Your task to perform on an android device: turn notification dots on Image 0: 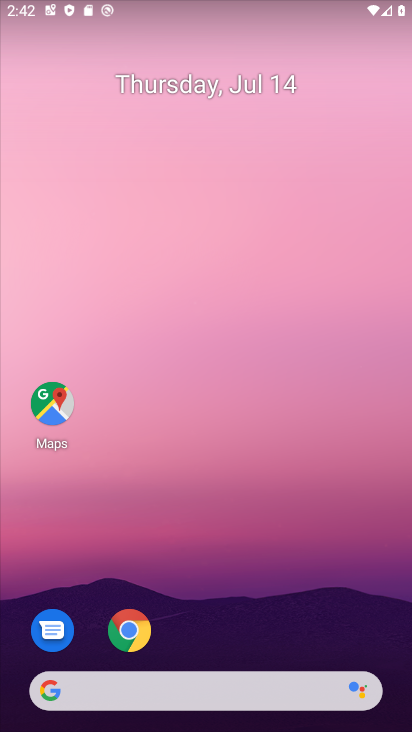
Step 0: drag from (218, 655) to (215, 80)
Your task to perform on an android device: turn notification dots on Image 1: 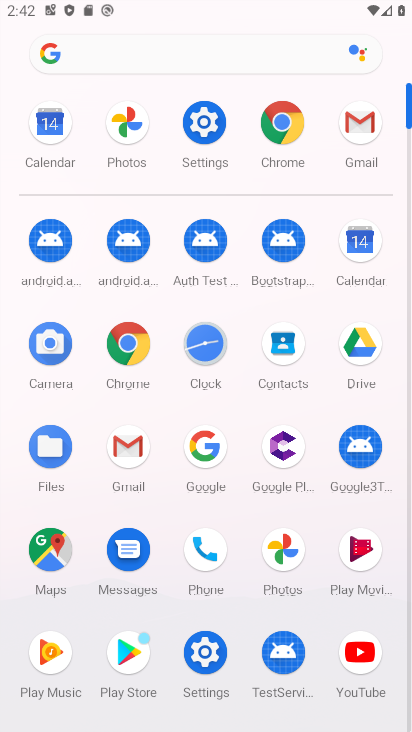
Step 1: click (205, 117)
Your task to perform on an android device: turn notification dots on Image 2: 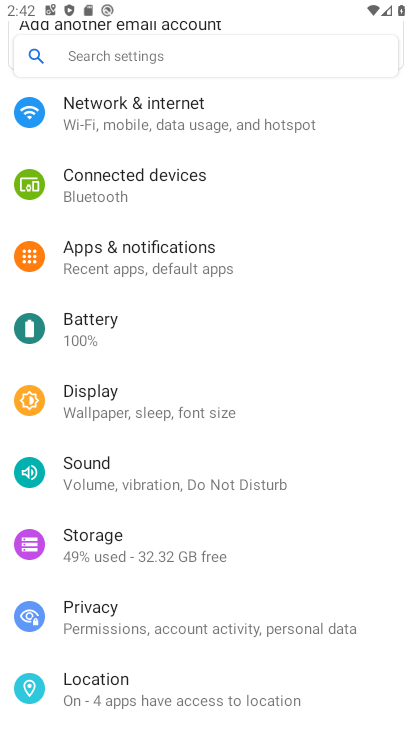
Step 2: click (202, 256)
Your task to perform on an android device: turn notification dots on Image 3: 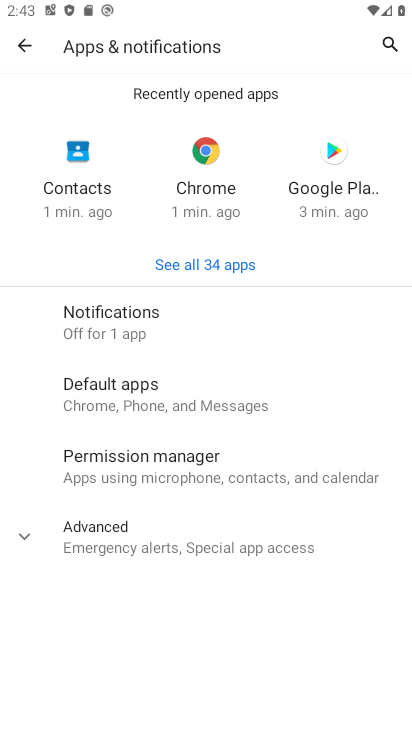
Step 3: click (176, 312)
Your task to perform on an android device: turn notification dots on Image 4: 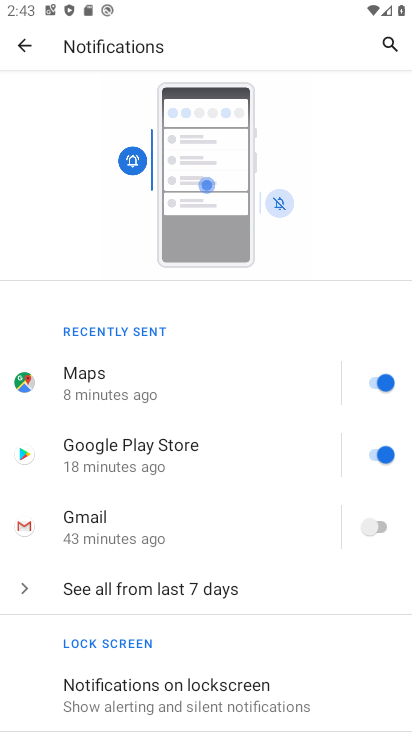
Step 4: drag from (250, 641) to (250, 177)
Your task to perform on an android device: turn notification dots on Image 5: 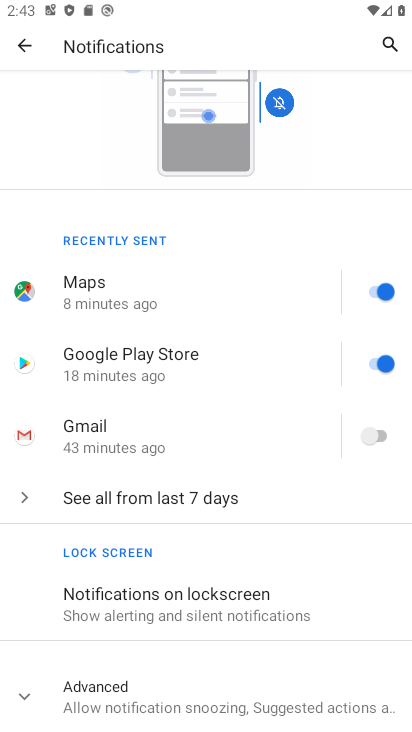
Step 5: click (161, 688)
Your task to perform on an android device: turn notification dots on Image 6: 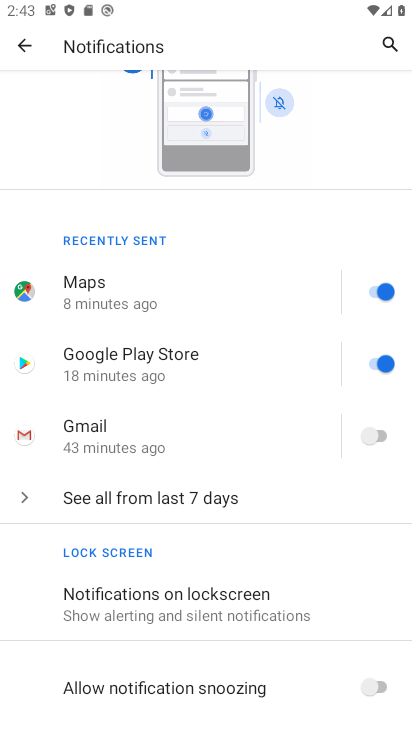
Step 6: task complete